Your task to perform on an android device: Open the Play Movies app and select the watchlist tab. Image 0: 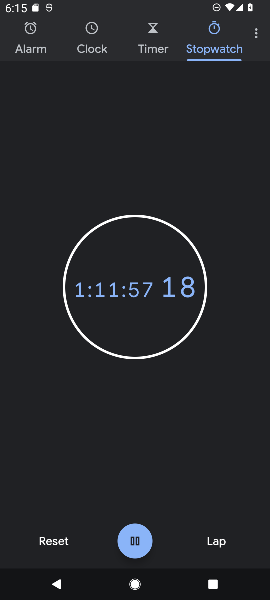
Step 0: press home button
Your task to perform on an android device: Open the Play Movies app and select the watchlist tab. Image 1: 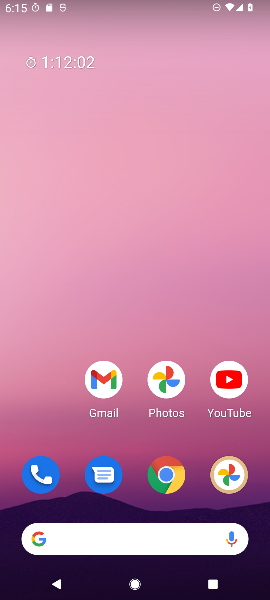
Step 1: task complete